Your task to perform on an android device: Open Google Chrome and click the shortcut for Amazon.com Image 0: 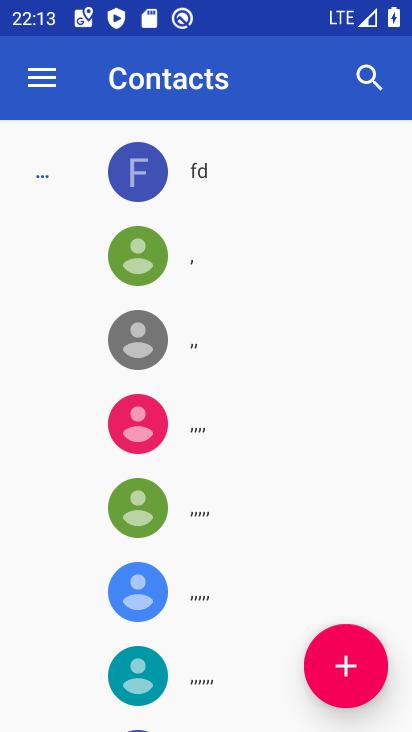
Step 0: press home button
Your task to perform on an android device: Open Google Chrome and click the shortcut for Amazon.com Image 1: 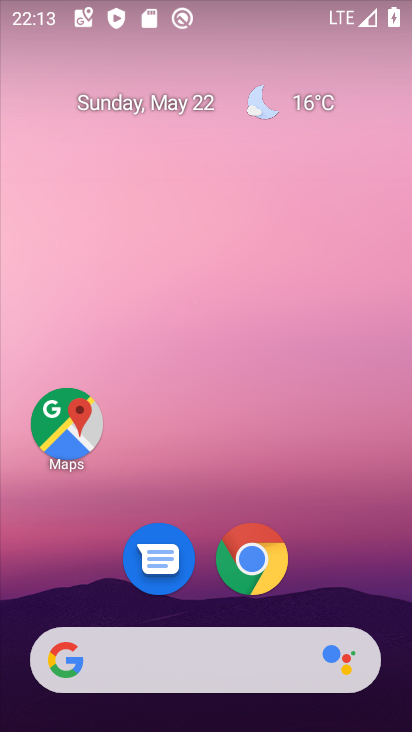
Step 1: click (271, 573)
Your task to perform on an android device: Open Google Chrome and click the shortcut for Amazon.com Image 2: 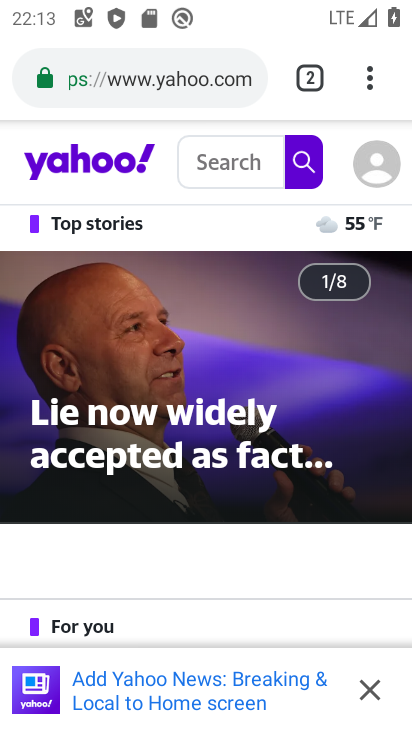
Step 2: click (358, 683)
Your task to perform on an android device: Open Google Chrome and click the shortcut for Amazon.com Image 3: 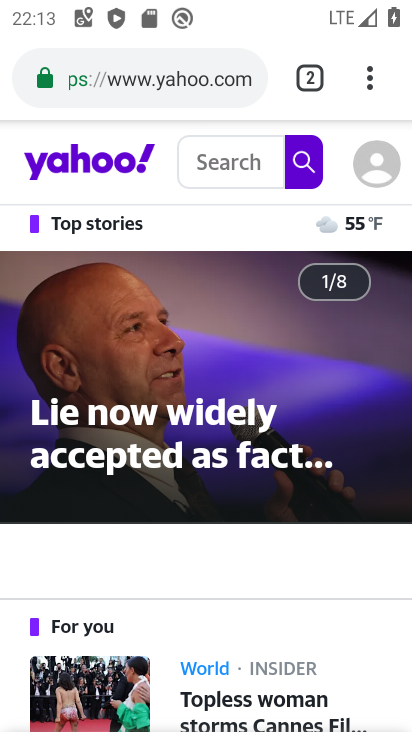
Step 3: click (319, 89)
Your task to perform on an android device: Open Google Chrome and click the shortcut for Amazon.com Image 4: 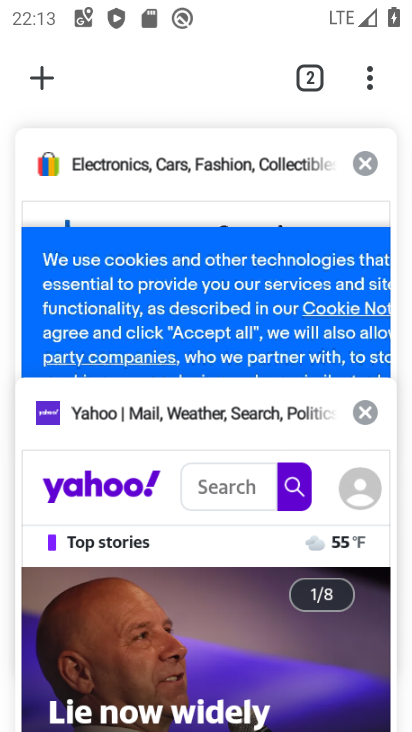
Step 4: click (47, 89)
Your task to perform on an android device: Open Google Chrome and click the shortcut for Amazon.com Image 5: 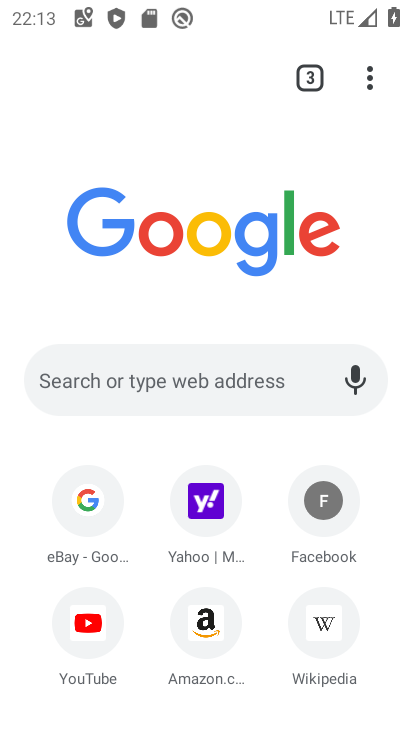
Step 5: click (195, 626)
Your task to perform on an android device: Open Google Chrome and click the shortcut for Amazon.com Image 6: 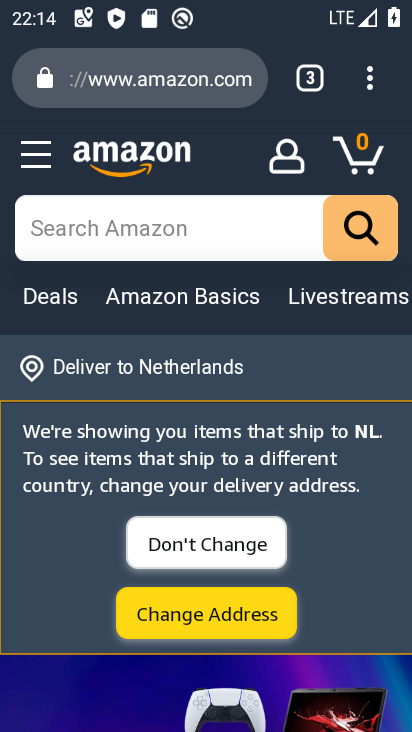
Step 6: click (372, 87)
Your task to perform on an android device: Open Google Chrome and click the shortcut for Amazon.com Image 7: 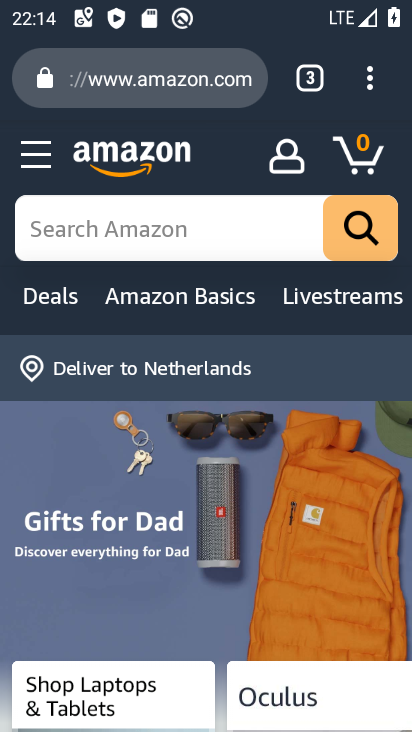
Step 7: click (365, 88)
Your task to perform on an android device: Open Google Chrome and click the shortcut for Amazon.com Image 8: 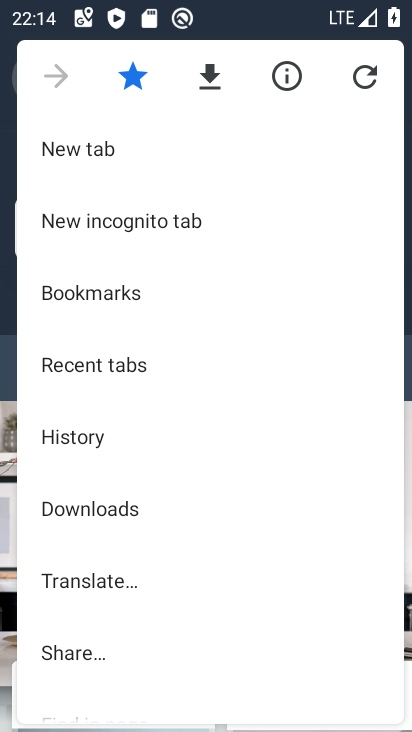
Step 8: drag from (95, 566) to (101, 280)
Your task to perform on an android device: Open Google Chrome and click the shortcut for Amazon.com Image 9: 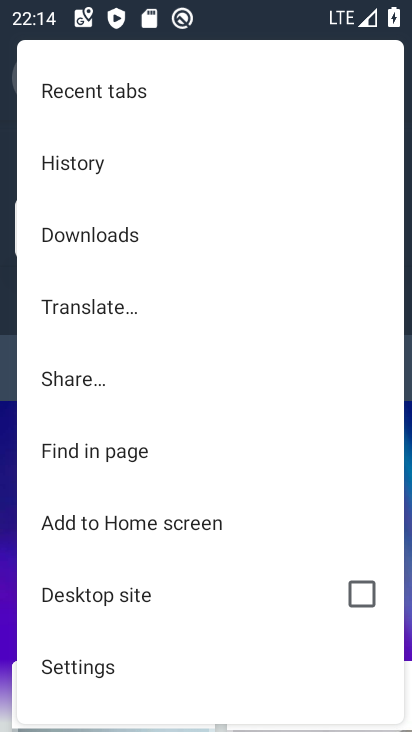
Step 9: click (144, 520)
Your task to perform on an android device: Open Google Chrome and click the shortcut for Amazon.com Image 10: 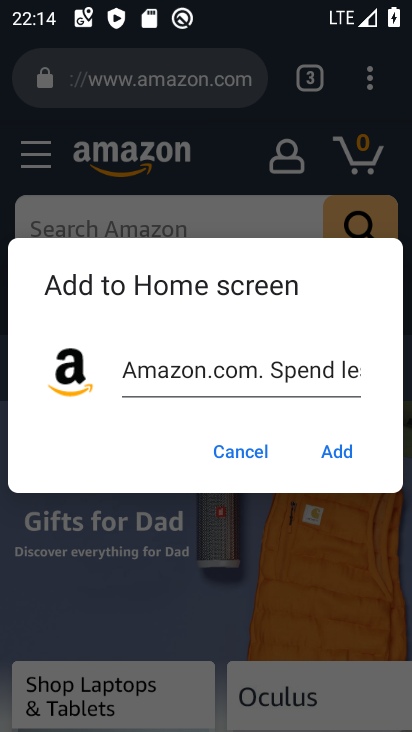
Step 10: click (318, 456)
Your task to perform on an android device: Open Google Chrome and click the shortcut for Amazon.com Image 11: 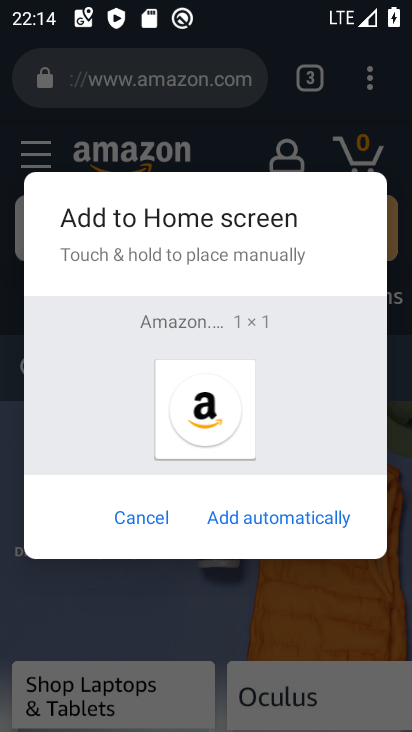
Step 11: click (292, 512)
Your task to perform on an android device: Open Google Chrome and click the shortcut for Amazon.com Image 12: 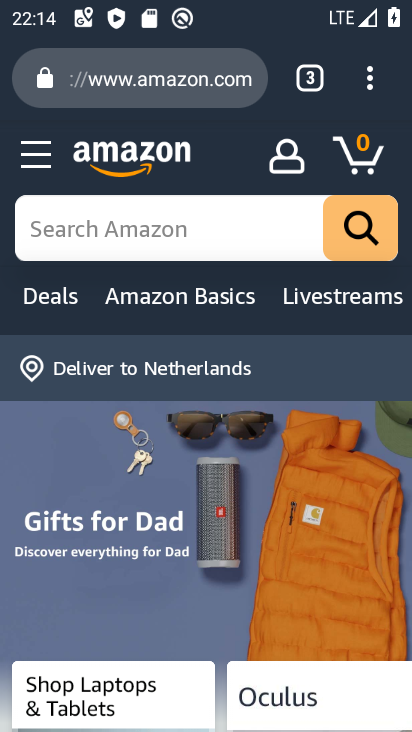
Step 12: task complete